Your task to perform on an android device: Is it going to rain this weekend? Image 0: 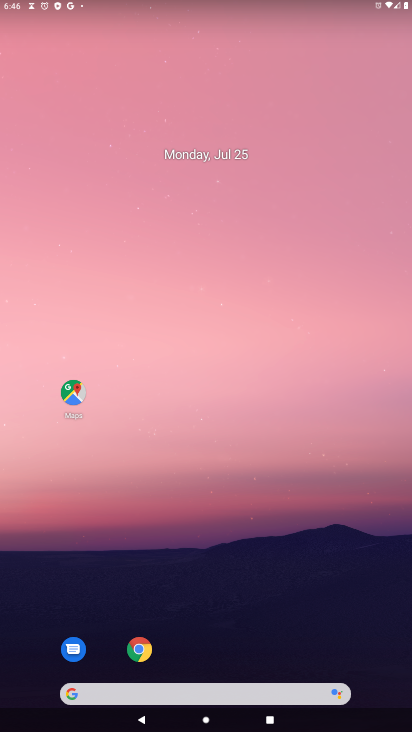
Step 0: drag from (288, 672) to (294, 1)
Your task to perform on an android device: Is it going to rain this weekend? Image 1: 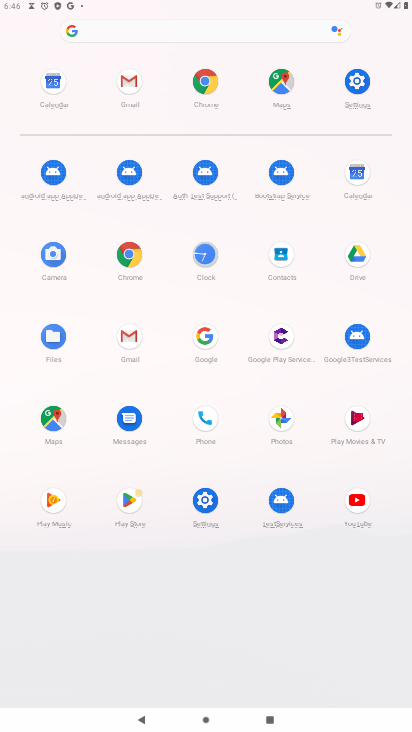
Step 1: click (364, 161)
Your task to perform on an android device: Is it going to rain this weekend? Image 2: 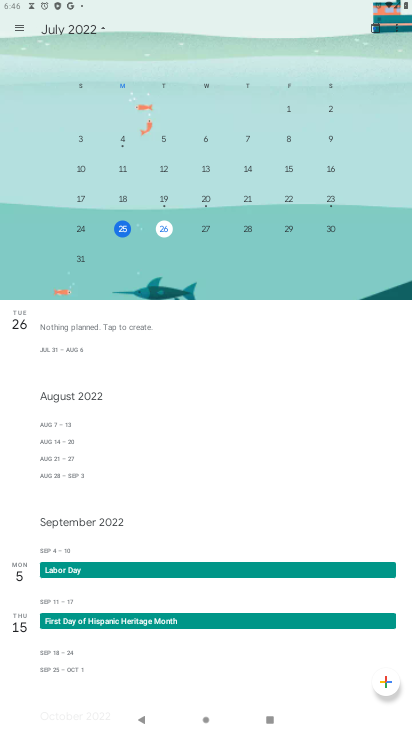
Step 2: drag from (353, 202) to (98, 204)
Your task to perform on an android device: Is it going to rain this weekend? Image 3: 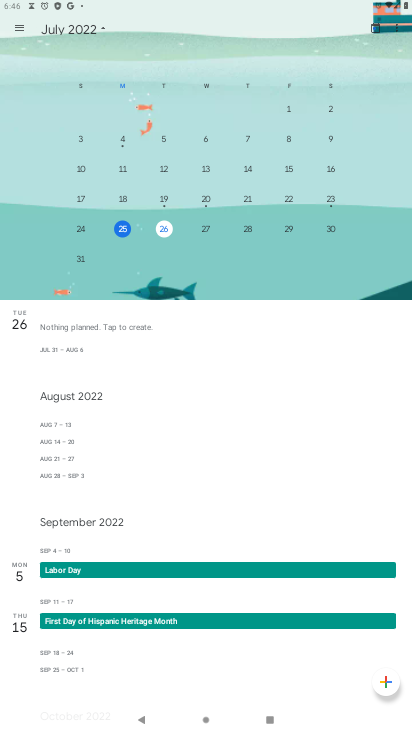
Step 3: click (337, 231)
Your task to perform on an android device: Is it going to rain this weekend? Image 4: 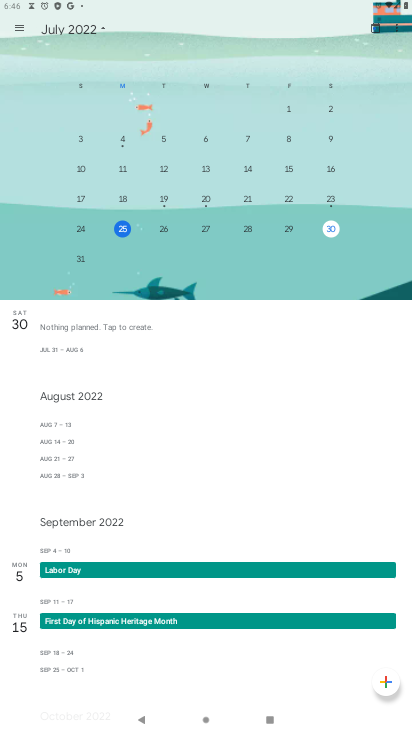
Step 4: task complete